Your task to perform on an android device: check android version Image 0: 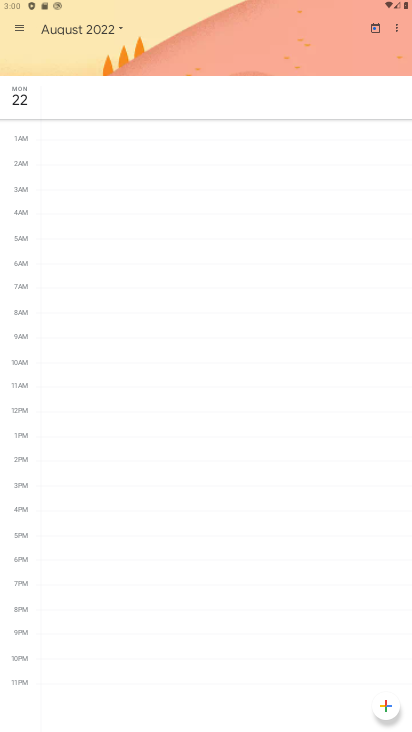
Step 0: press home button
Your task to perform on an android device: check android version Image 1: 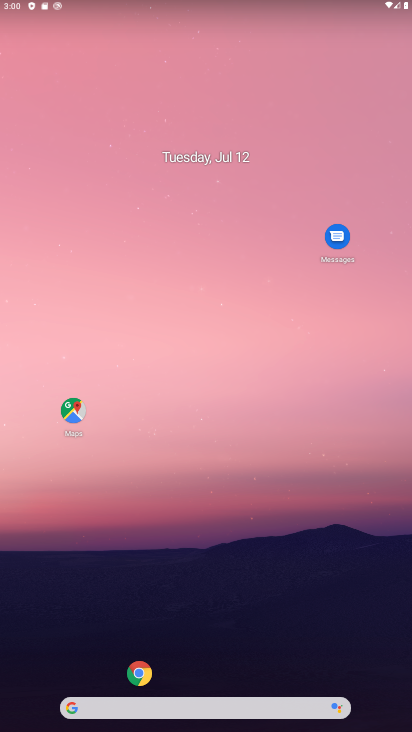
Step 1: drag from (48, 700) to (291, 87)
Your task to perform on an android device: check android version Image 2: 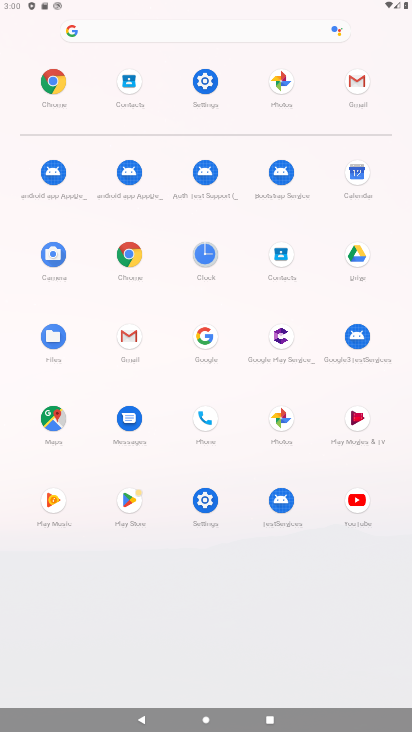
Step 2: click (202, 491)
Your task to perform on an android device: check android version Image 3: 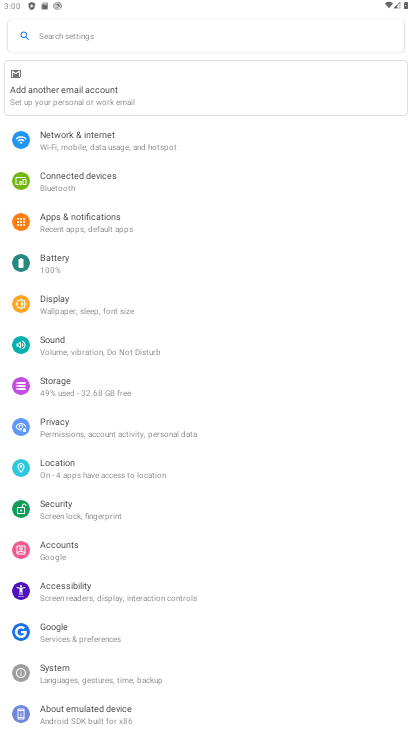
Step 3: click (103, 707)
Your task to perform on an android device: check android version Image 4: 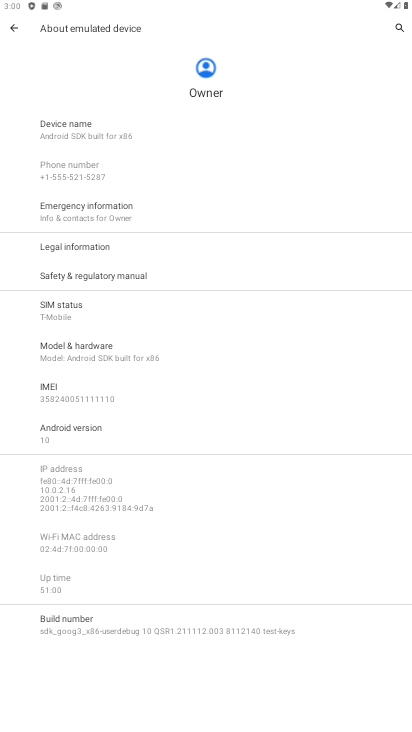
Step 4: task complete